Your task to perform on an android device: change the clock style Image 0: 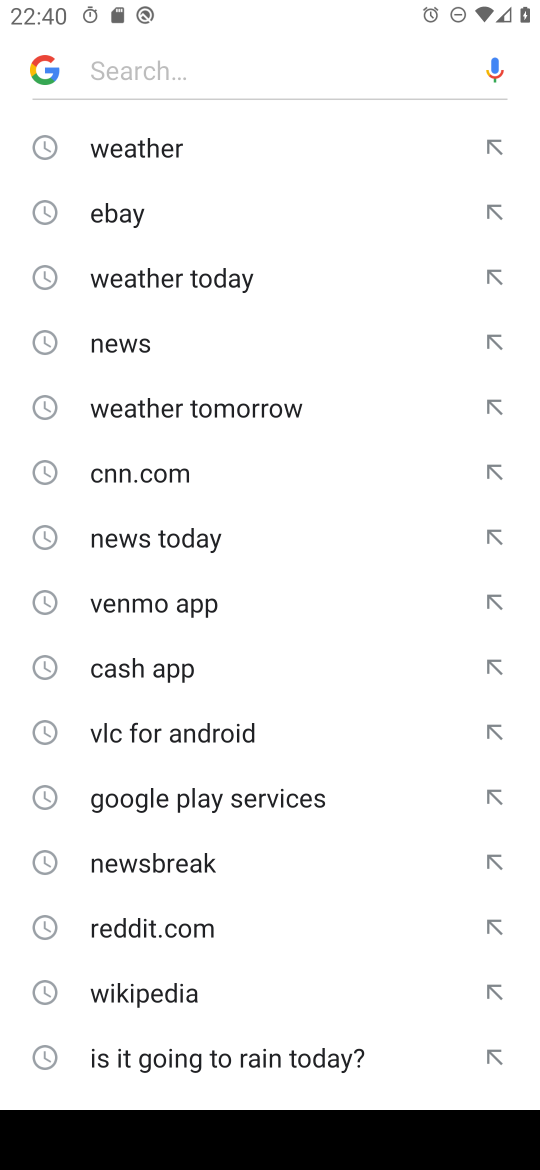
Step 0: press back button
Your task to perform on an android device: change the clock style Image 1: 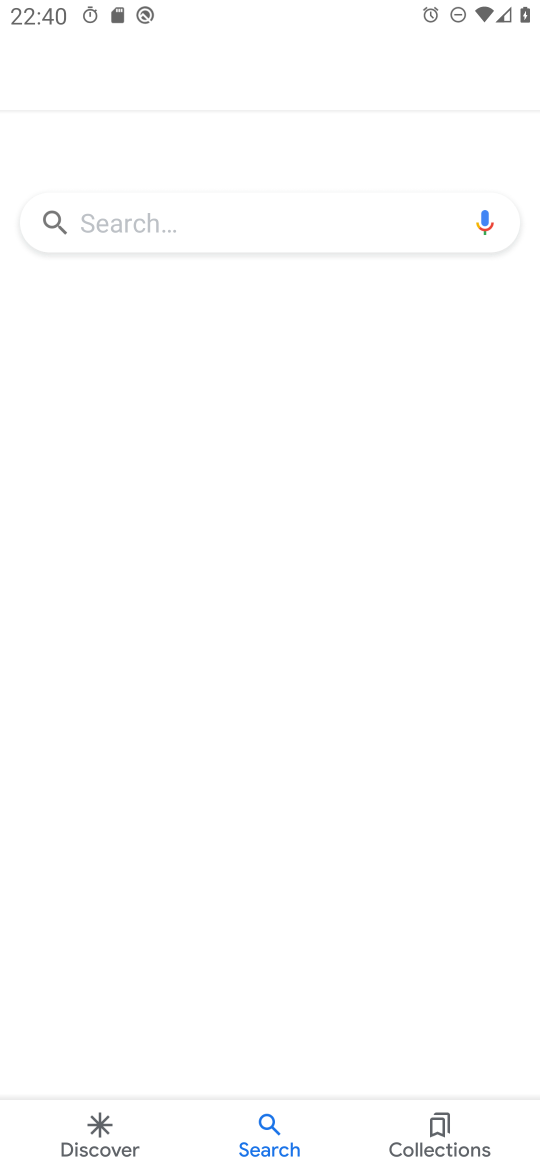
Step 1: press back button
Your task to perform on an android device: change the clock style Image 2: 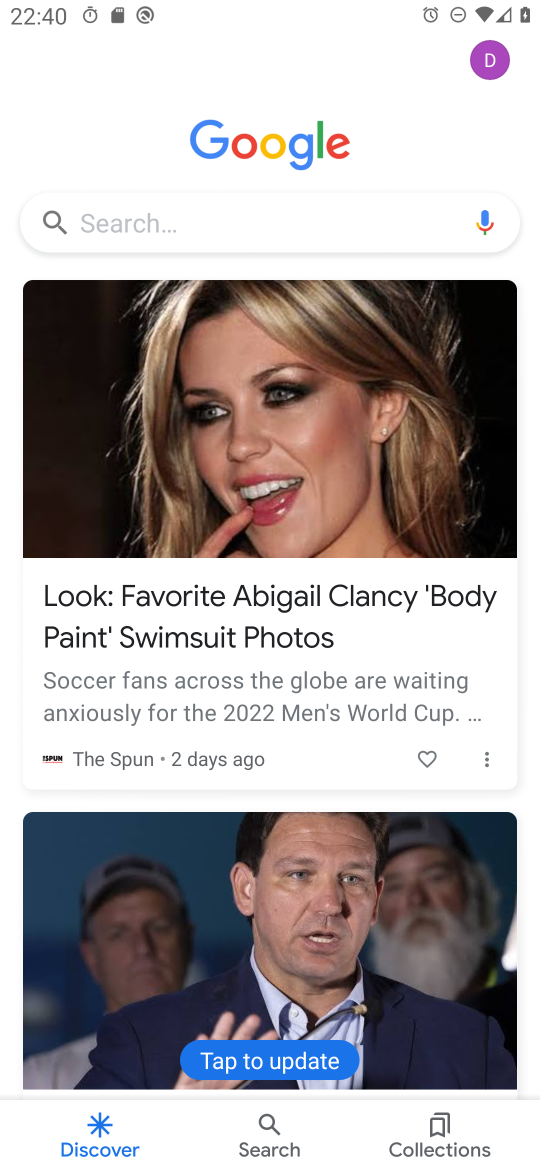
Step 2: press back button
Your task to perform on an android device: change the clock style Image 3: 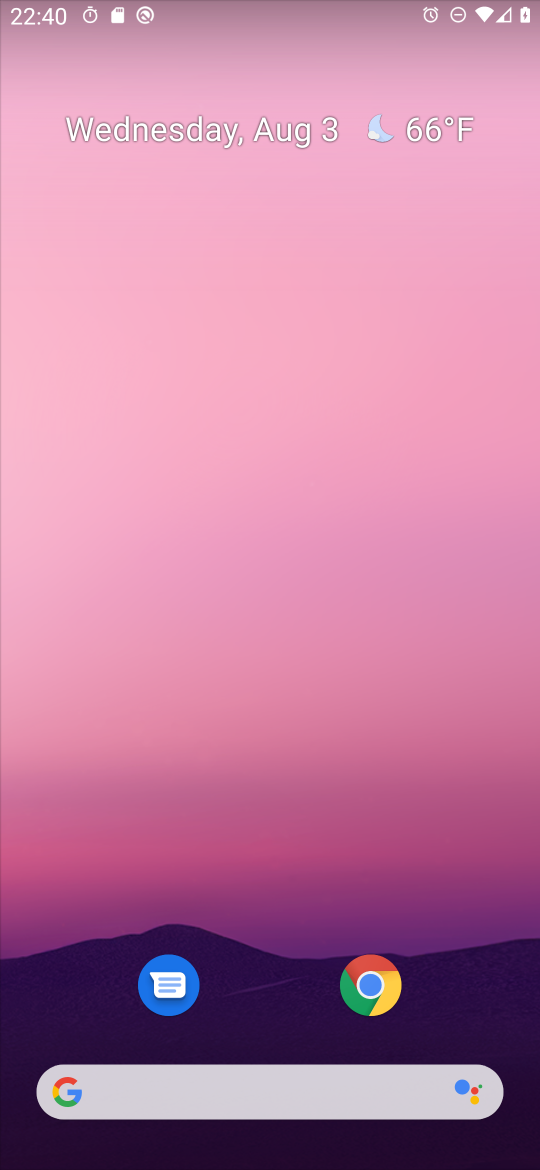
Step 3: press back button
Your task to perform on an android device: change the clock style Image 4: 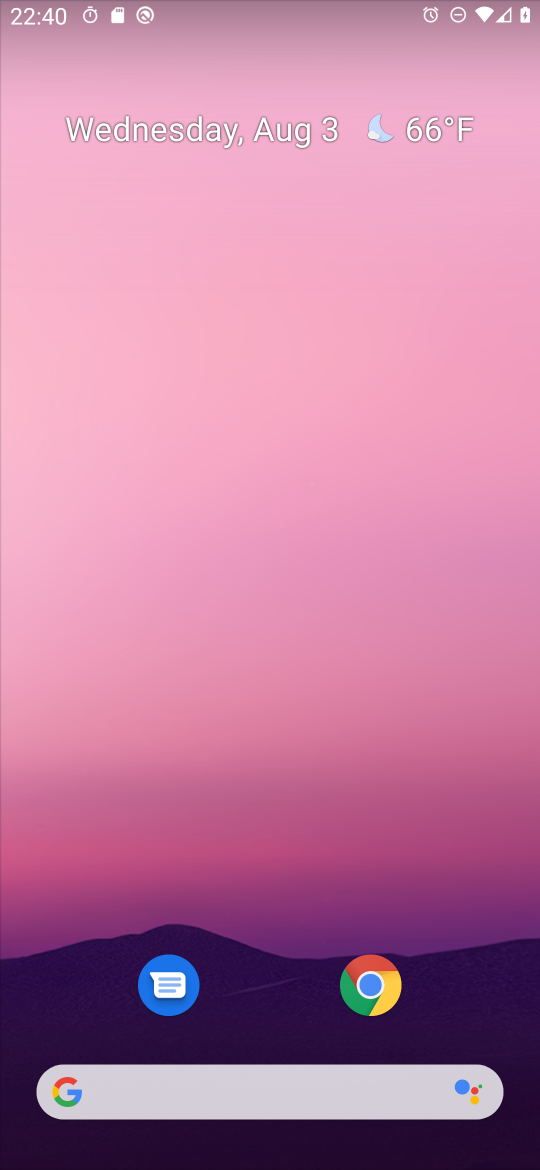
Step 4: drag from (237, 1005) to (251, 284)
Your task to perform on an android device: change the clock style Image 5: 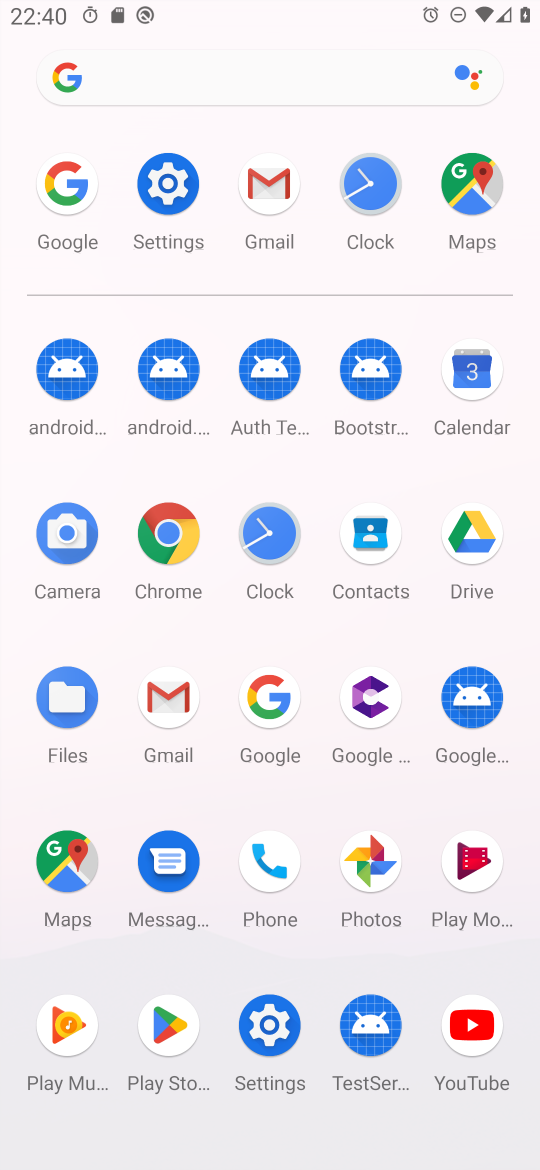
Step 5: click (353, 194)
Your task to perform on an android device: change the clock style Image 6: 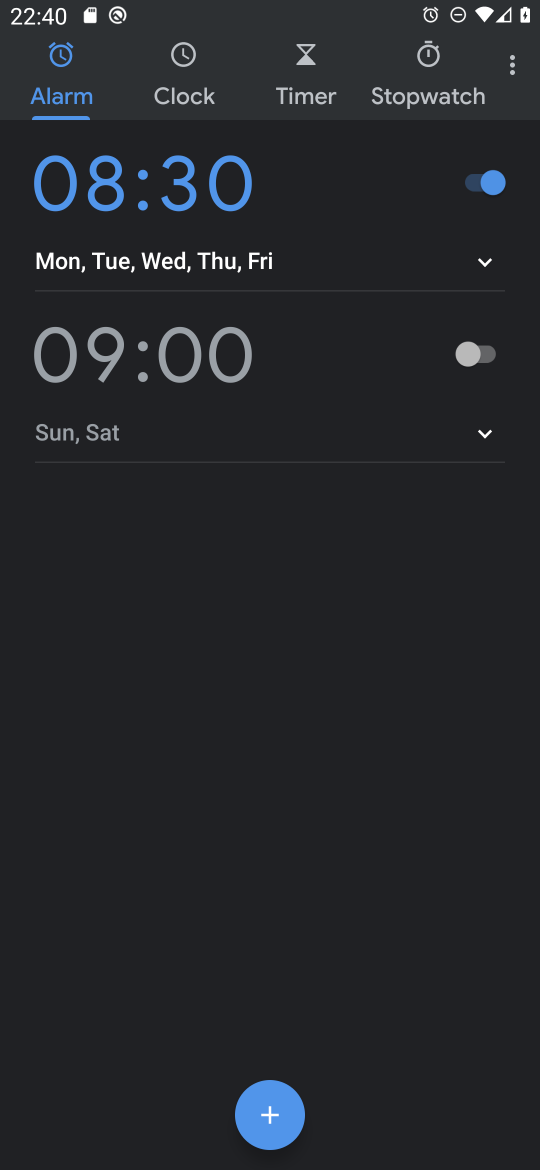
Step 6: click (506, 72)
Your task to perform on an android device: change the clock style Image 7: 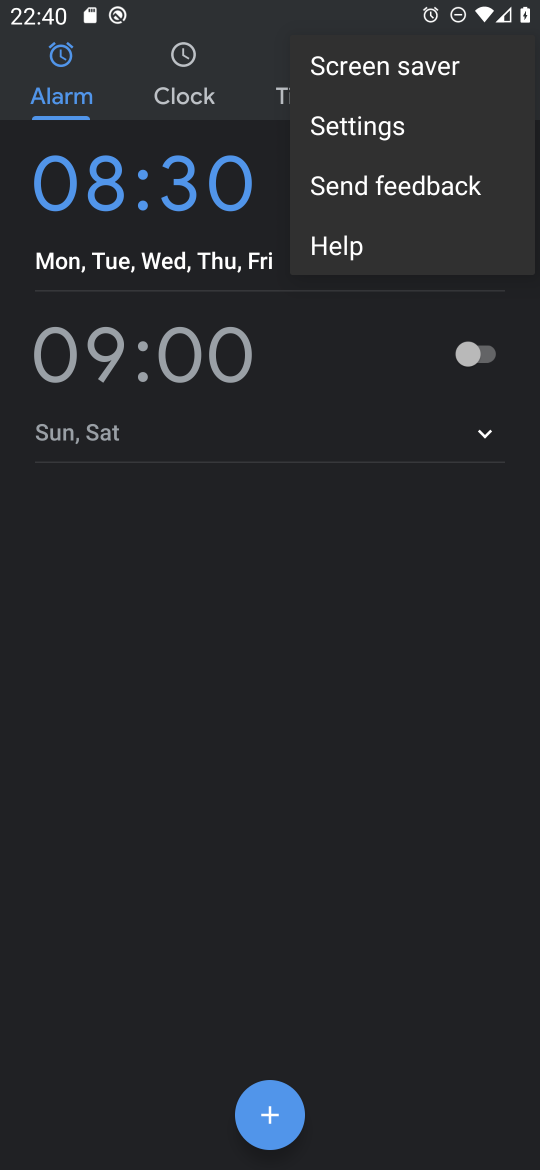
Step 7: click (394, 133)
Your task to perform on an android device: change the clock style Image 8: 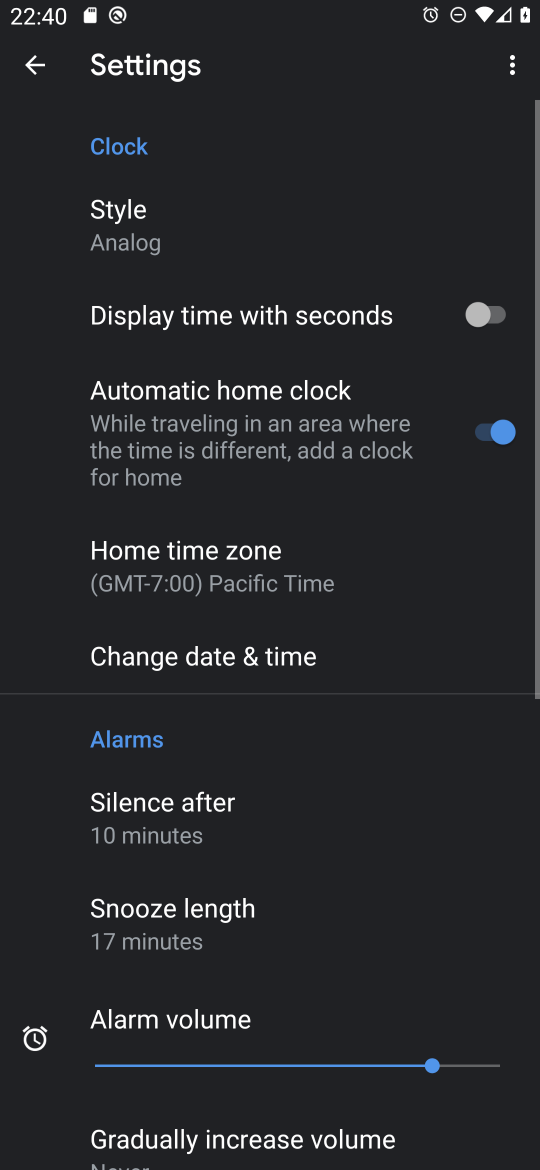
Step 8: click (173, 216)
Your task to perform on an android device: change the clock style Image 9: 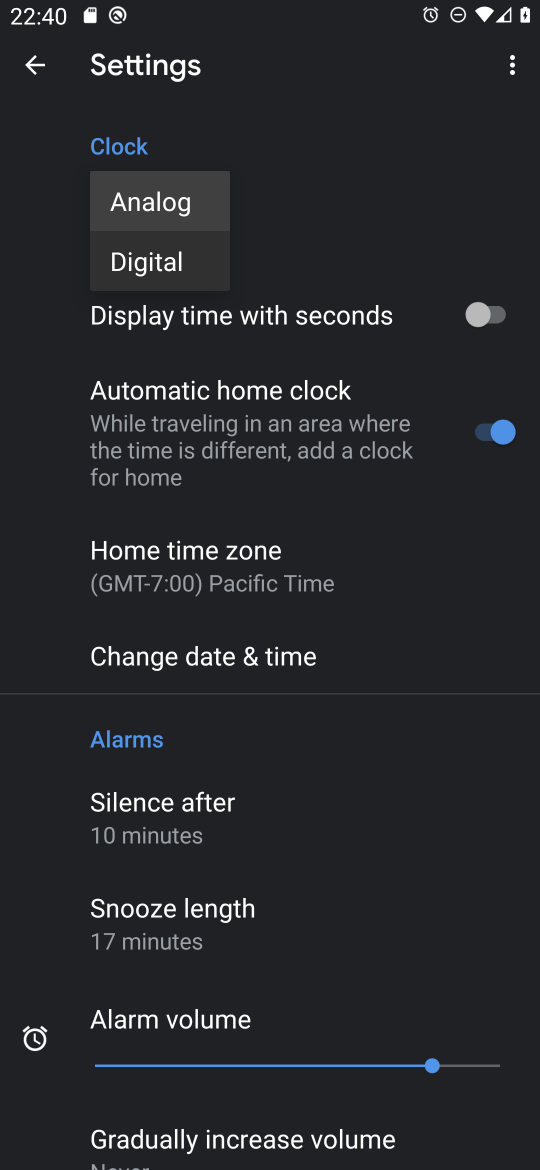
Step 9: click (177, 263)
Your task to perform on an android device: change the clock style Image 10: 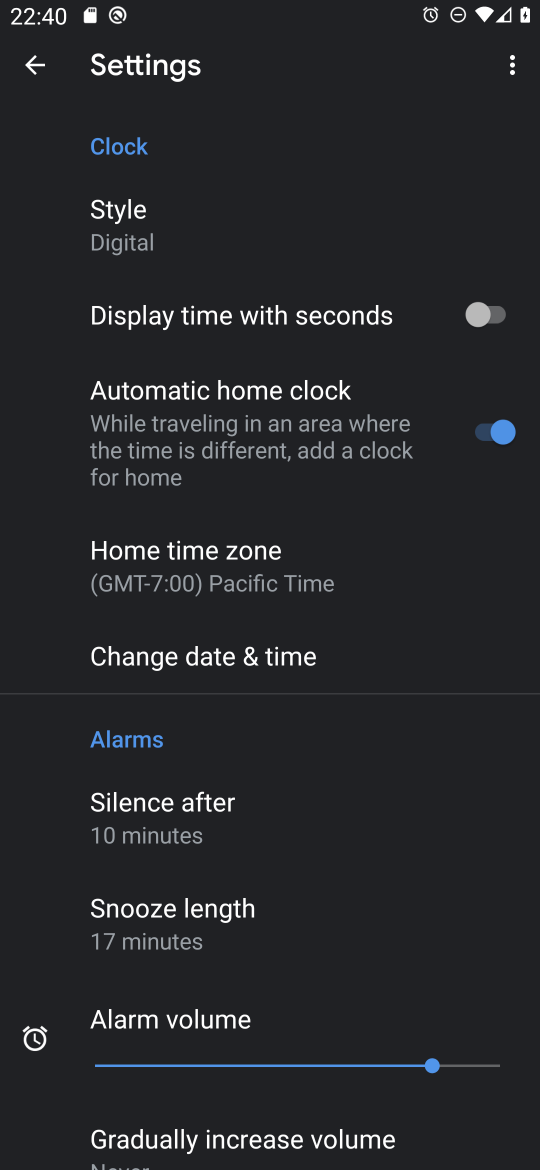
Step 10: task complete